Your task to perform on an android device: change the clock display to show seconds Image 0: 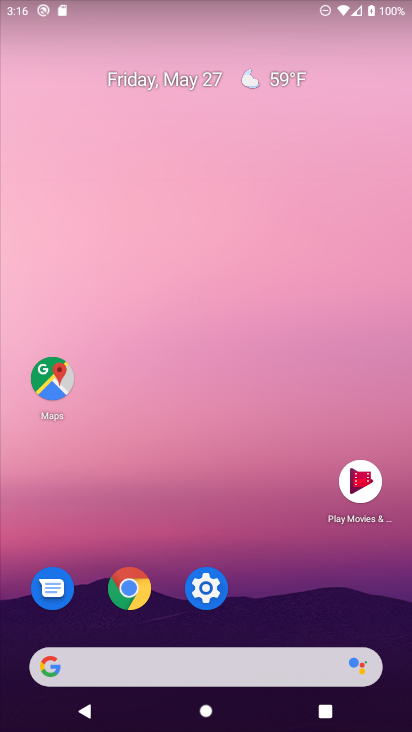
Step 0: drag from (261, 725) to (189, 216)
Your task to perform on an android device: change the clock display to show seconds Image 1: 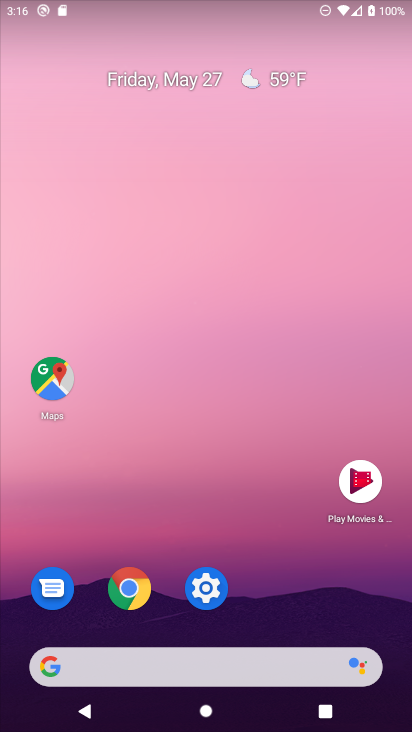
Step 1: drag from (281, 572) to (206, 118)
Your task to perform on an android device: change the clock display to show seconds Image 2: 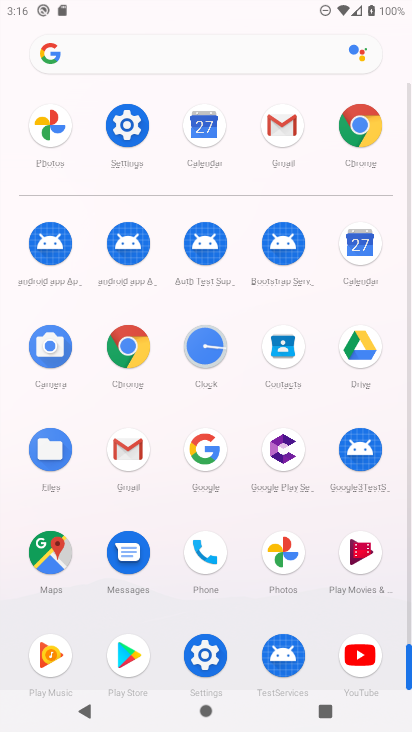
Step 2: drag from (236, 388) to (190, 74)
Your task to perform on an android device: change the clock display to show seconds Image 3: 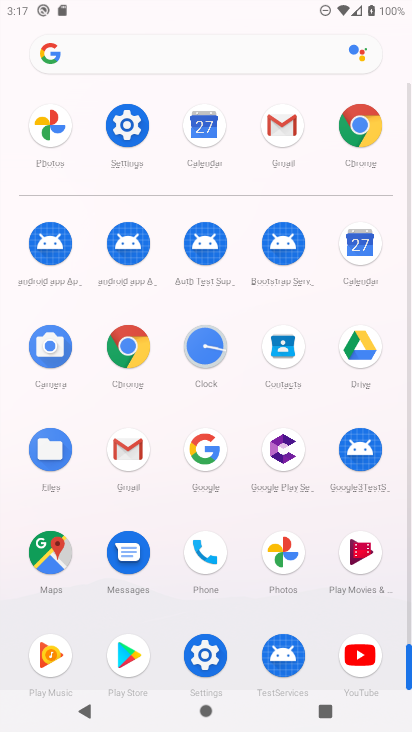
Step 3: click (207, 348)
Your task to perform on an android device: change the clock display to show seconds Image 4: 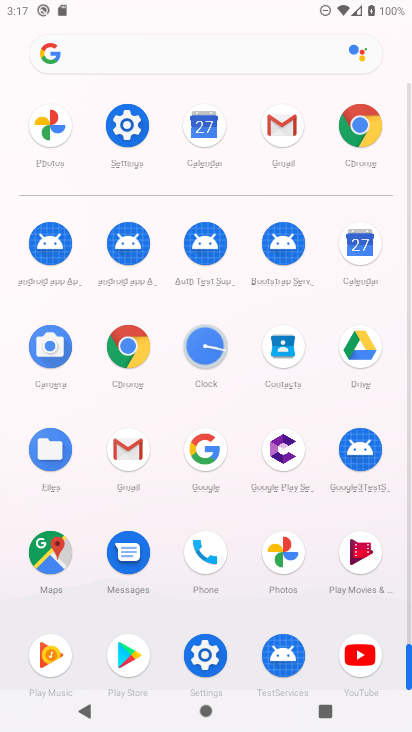
Step 4: click (207, 348)
Your task to perform on an android device: change the clock display to show seconds Image 5: 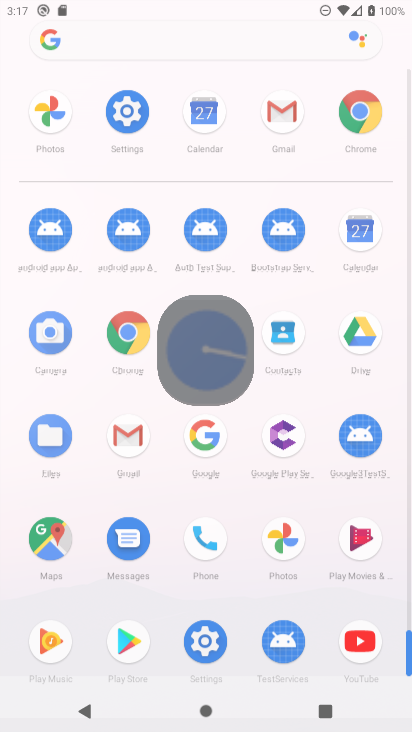
Step 5: click (206, 345)
Your task to perform on an android device: change the clock display to show seconds Image 6: 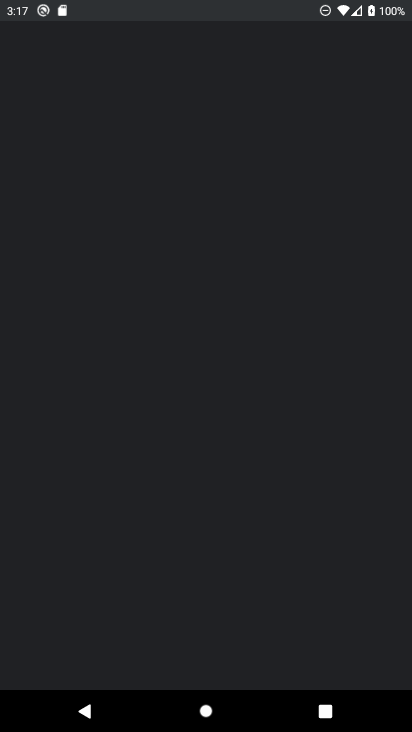
Step 6: click (207, 342)
Your task to perform on an android device: change the clock display to show seconds Image 7: 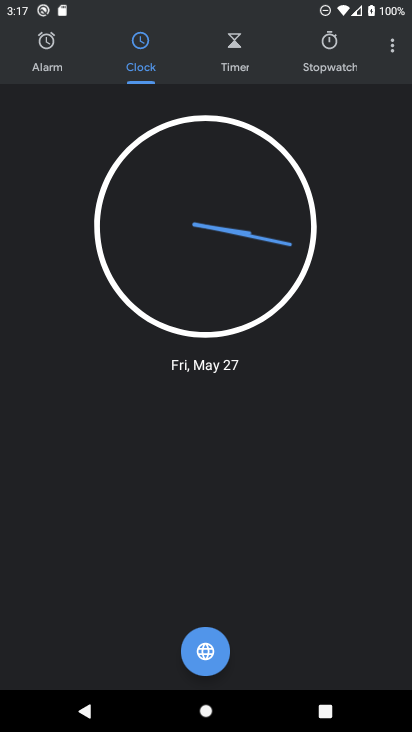
Step 7: click (209, 342)
Your task to perform on an android device: change the clock display to show seconds Image 8: 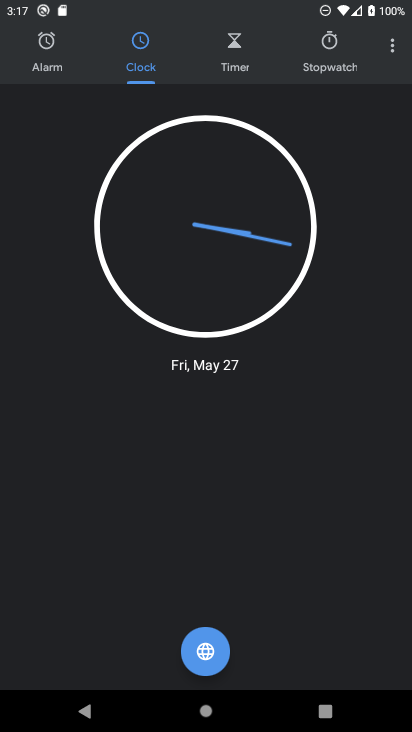
Step 8: click (390, 43)
Your task to perform on an android device: change the clock display to show seconds Image 9: 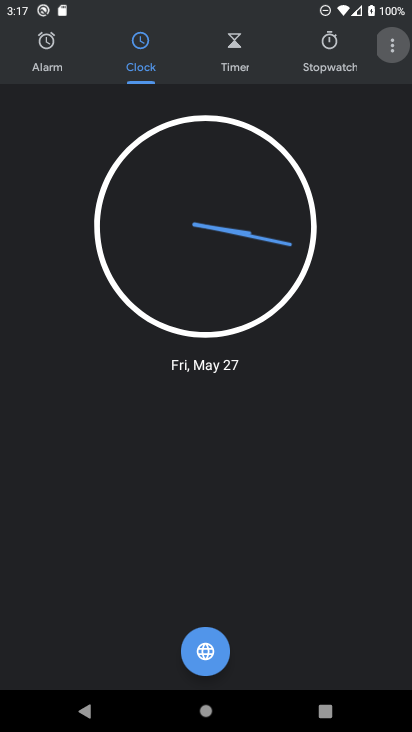
Step 9: click (391, 44)
Your task to perform on an android device: change the clock display to show seconds Image 10: 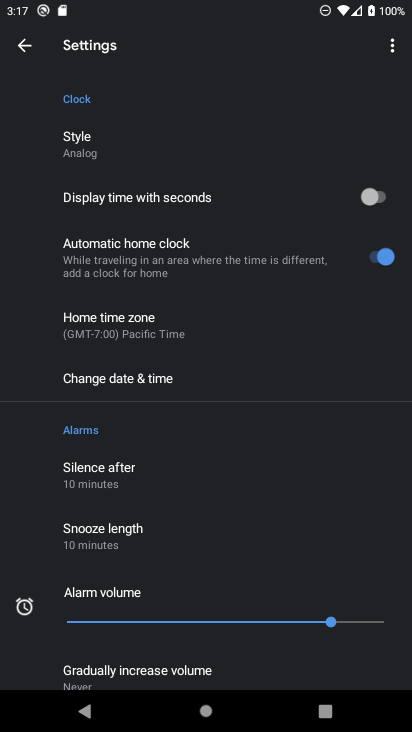
Step 10: click (364, 193)
Your task to perform on an android device: change the clock display to show seconds Image 11: 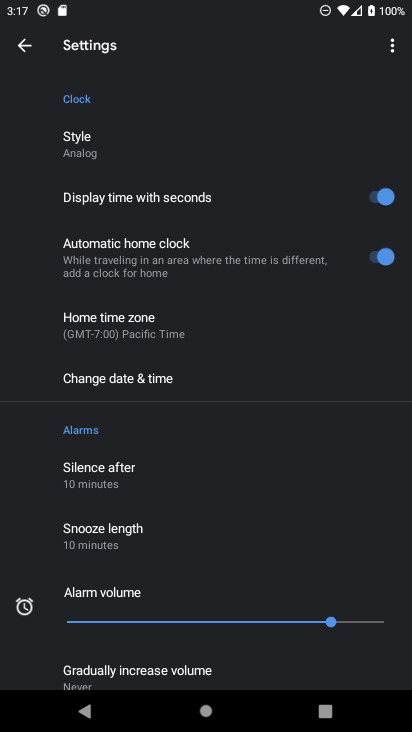
Step 11: task complete